Your task to perform on an android device: When is my next meeting? Image 0: 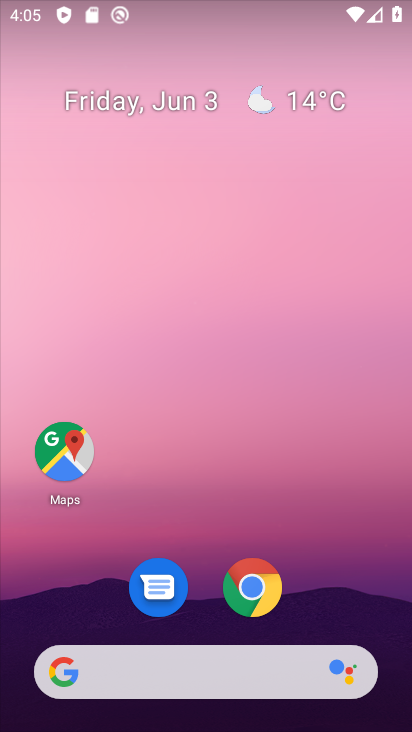
Step 0: drag from (202, 571) to (249, 291)
Your task to perform on an android device: When is my next meeting? Image 1: 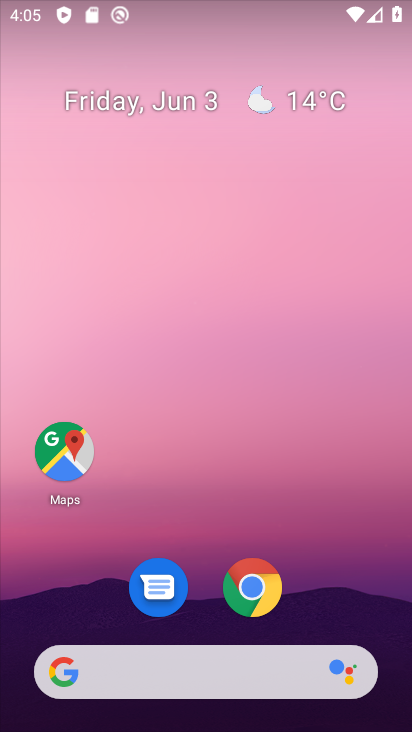
Step 1: drag from (212, 634) to (173, 258)
Your task to perform on an android device: When is my next meeting? Image 2: 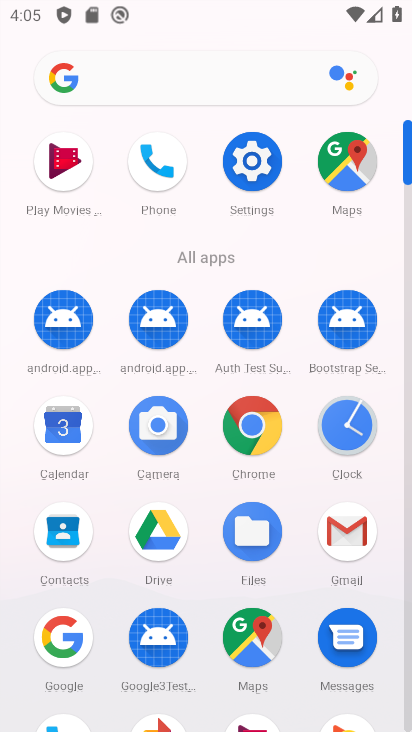
Step 2: click (57, 441)
Your task to perform on an android device: When is my next meeting? Image 3: 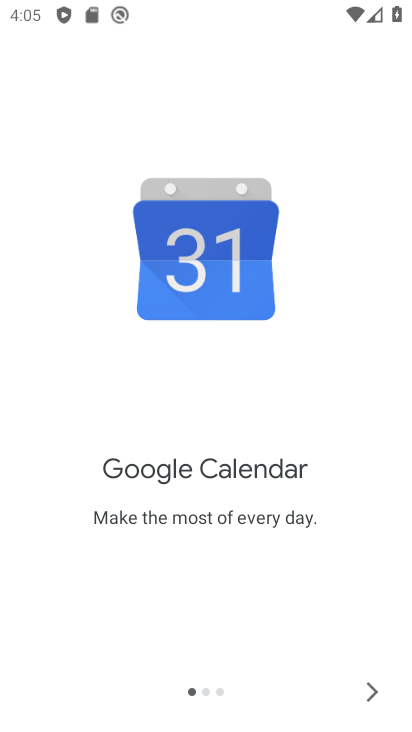
Step 3: click (373, 692)
Your task to perform on an android device: When is my next meeting? Image 4: 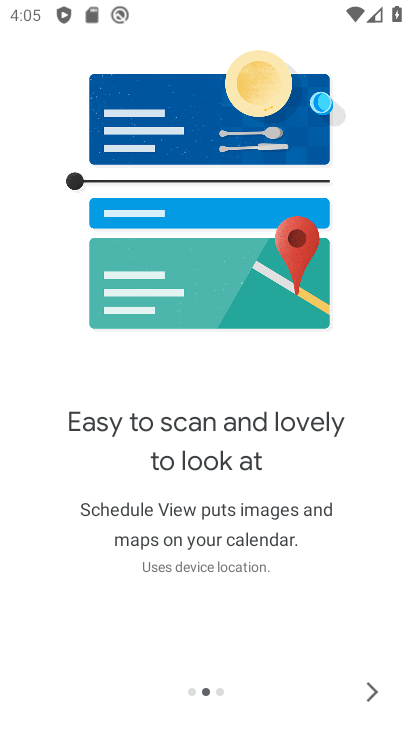
Step 4: click (373, 692)
Your task to perform on an android device: When is my next meeting? Image 5: 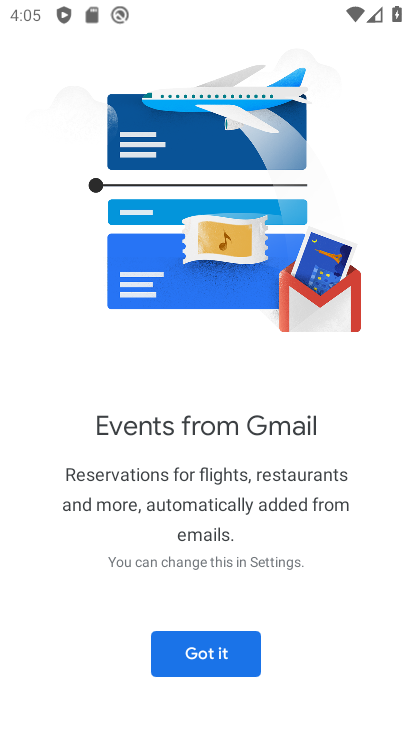
Step 5: click (222, 672)
Your task to perform on an android device: When is my next meeting? Image 6: 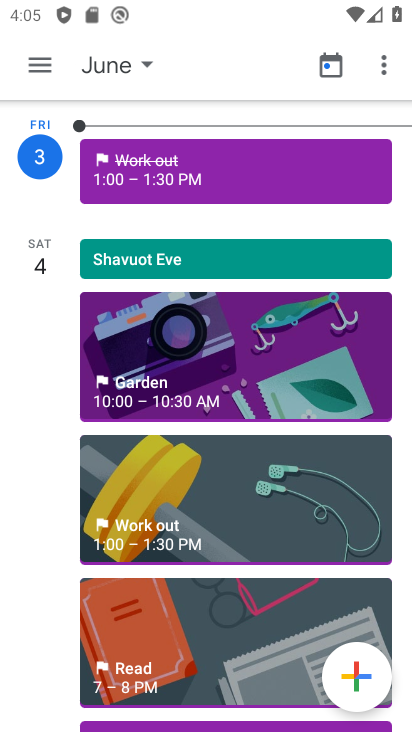
Step 6: click (171, 401)
Your task to perform on an android device: When is my next meeting? Image 7: 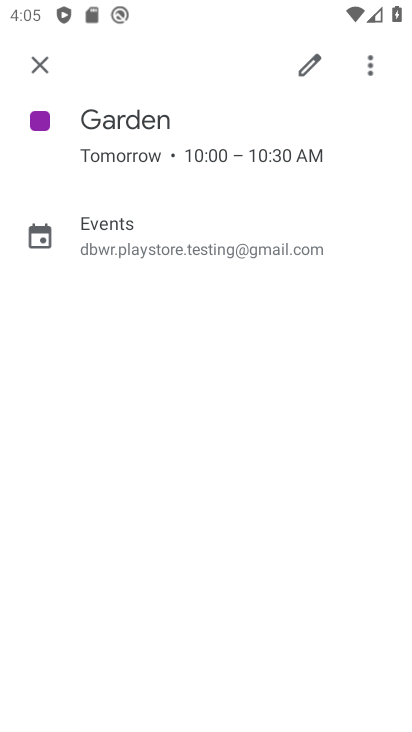
Step 7: task complete